Your task to perform on an android device: open a bookmark in the chrome app Image 0: 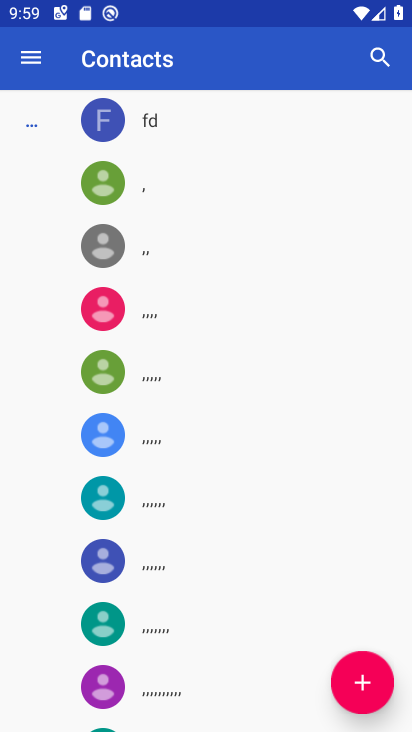
Step 0: press home button
Your task to perform on an android device: open a bookmark in the chrome app Image 1: 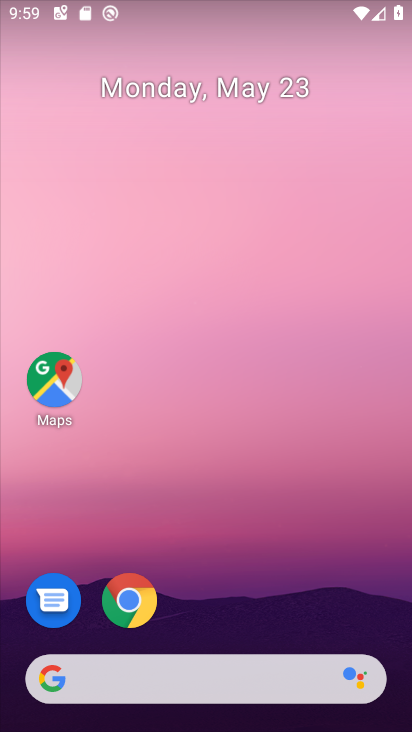
Step 1: click (128, 601)
Your task to perform on an android device: open a bookmark in the chrome app Image 2: 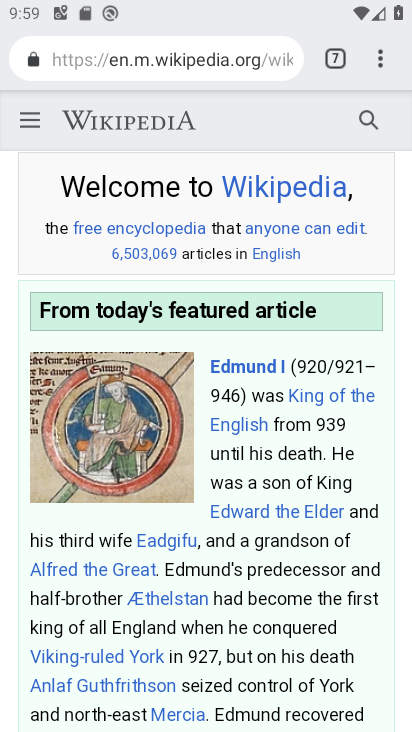
Step 2: click (382, 63)
Your task to perform on an android device: open a bookmark in the chrome app Image 3: 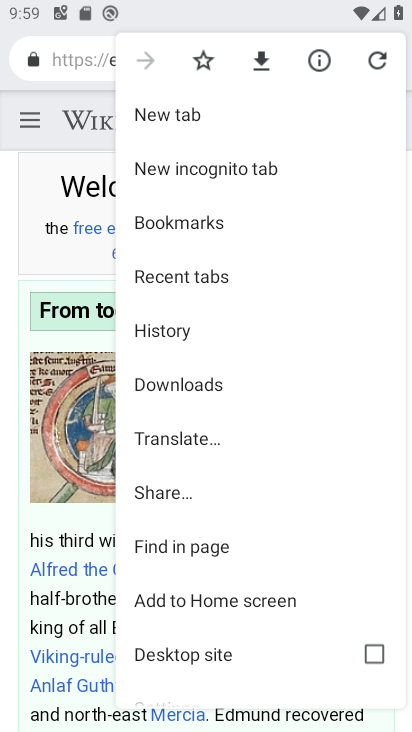
Step 3: drag from (190, 619) to (182, 337)
Your task to perform on an android device: open a bookmark in the chrome app Image 4: 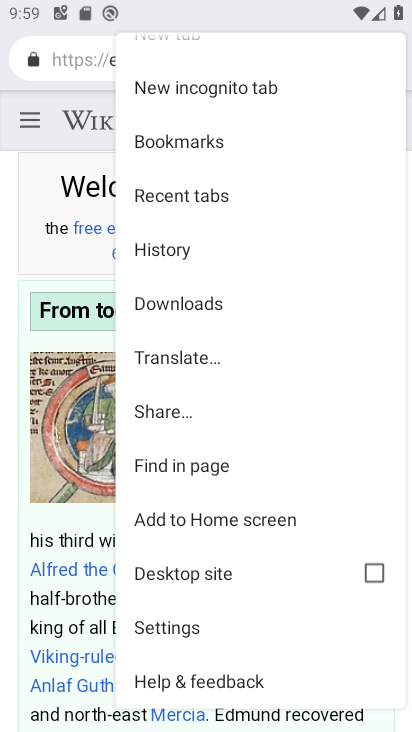
Step 4: click (193, 144)
Your task to perform on an android device: open a bookmark in the chrome app Image 5: 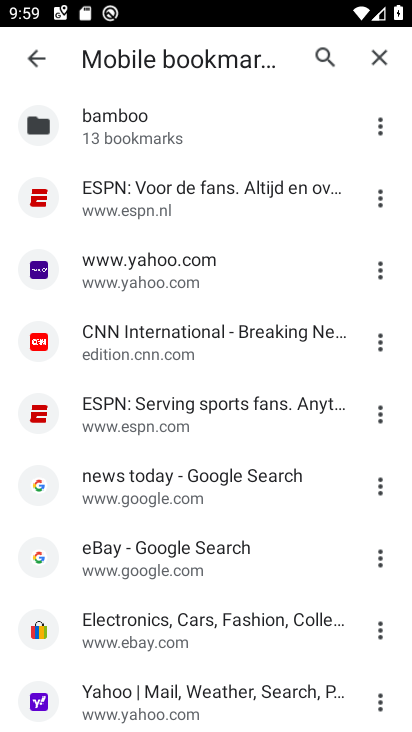
Step 5: click (139, 199)
Your task to perform on an android device: open a bookmark in the chrome app Image 6: 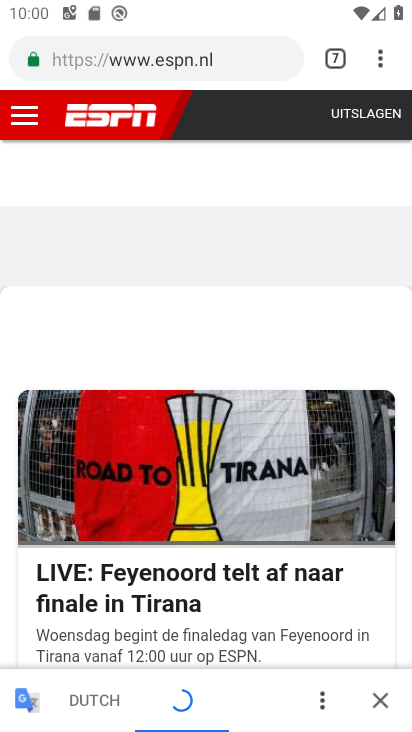
Step 6: task complete